Your task to perform on an android device: Open the calendar app, open the side menu, and click the "Day" option Image 0: 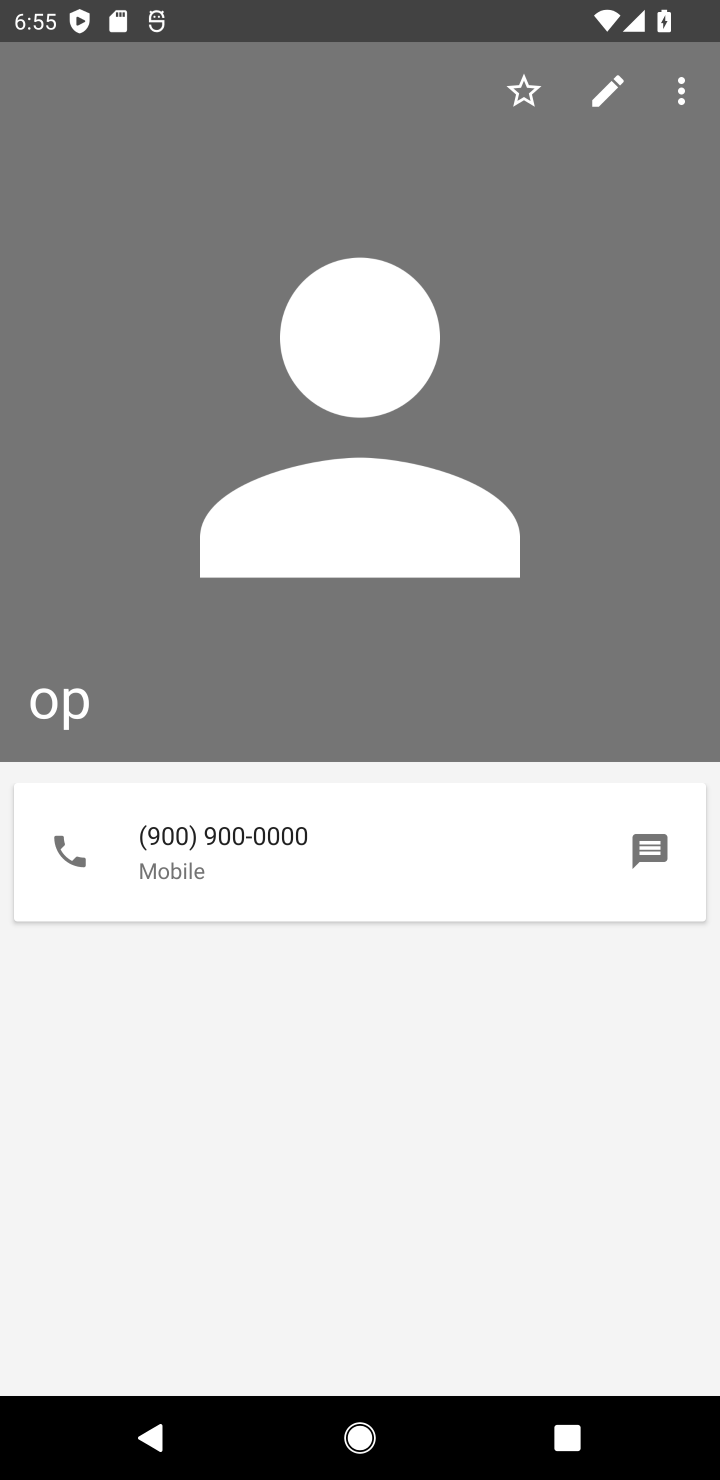
Step 0: press home button
Your task to perform on an android device: Open the calendar app, open the side menu, and click the "Day" option Image 1: 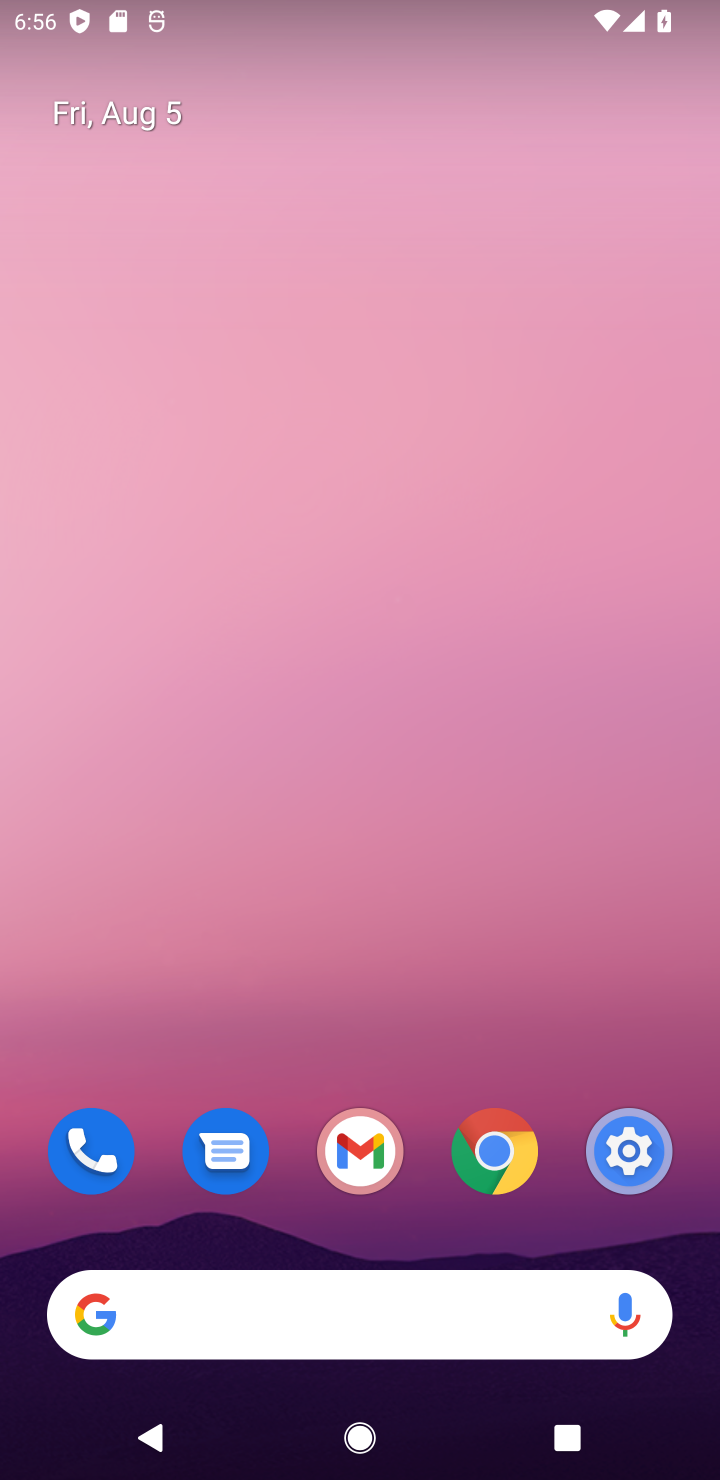
Step 1: drag from (650, 1055) to (507, 407)
Your task to perform on an android device: Open the calendar app, open the side menu, and click the "Day" option Image 2: 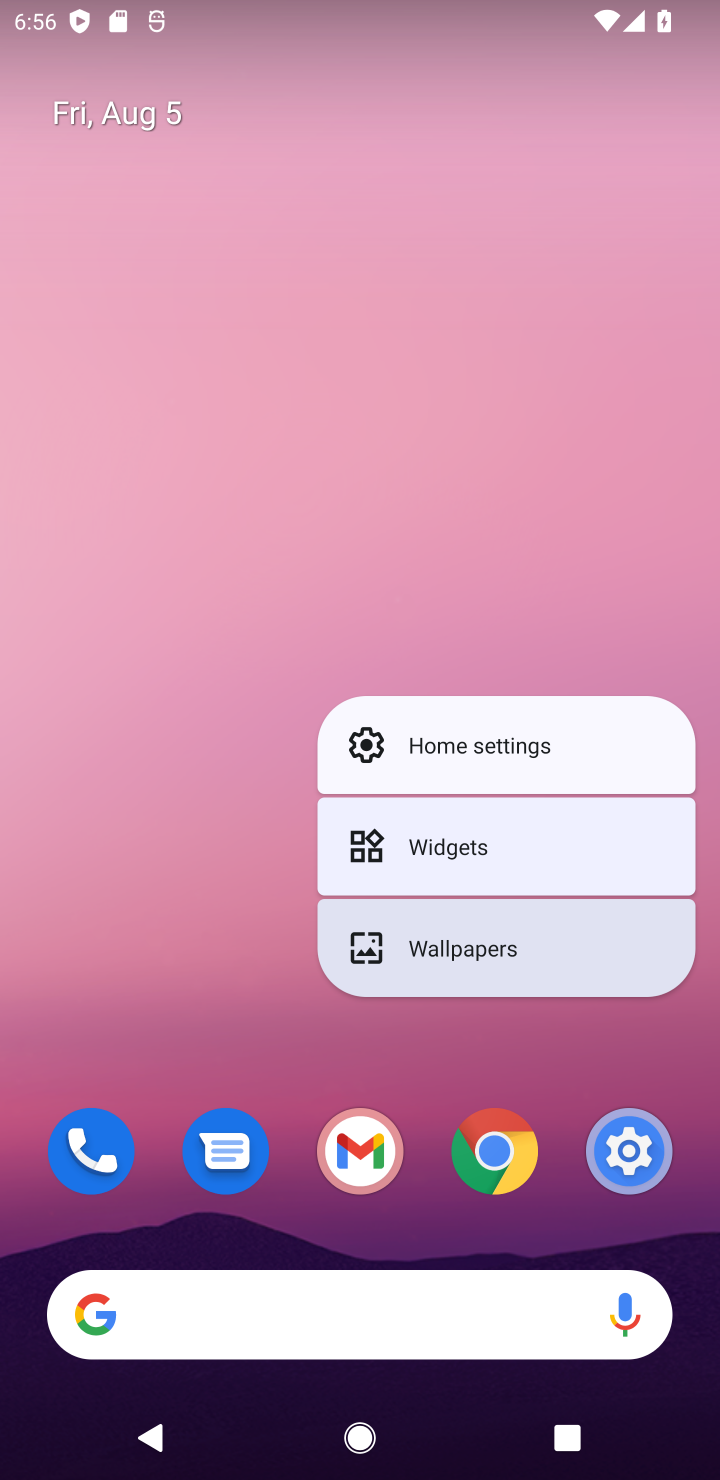
Step 2: click (527, 1052)
Your task to perform on an android device: Open the calendar app, open the side menu, and click the "Day" option Image 3: 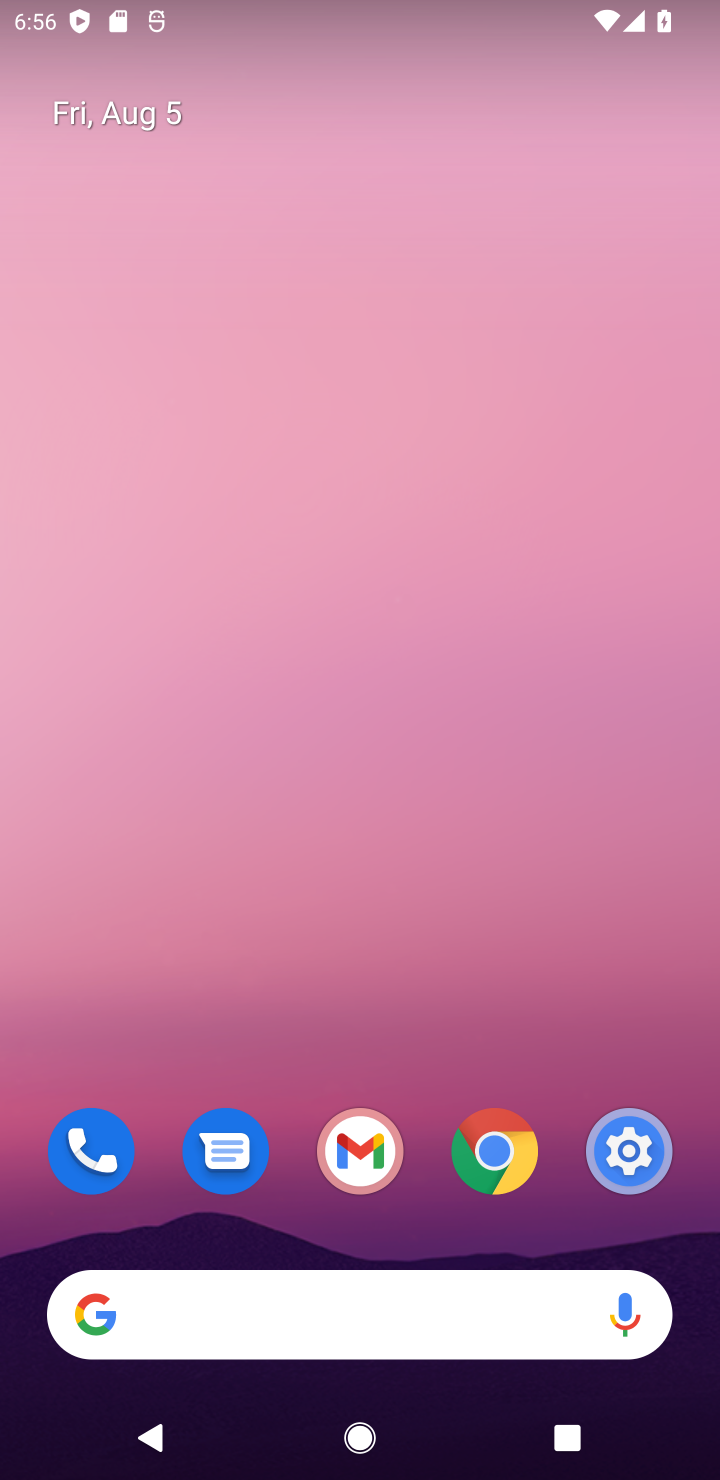
Step 3: drag from (527, 1052) to (503, 546)
Your task to perform on an android device: Open the calendar app, open the side menu, and click the "Day" option Image 4: 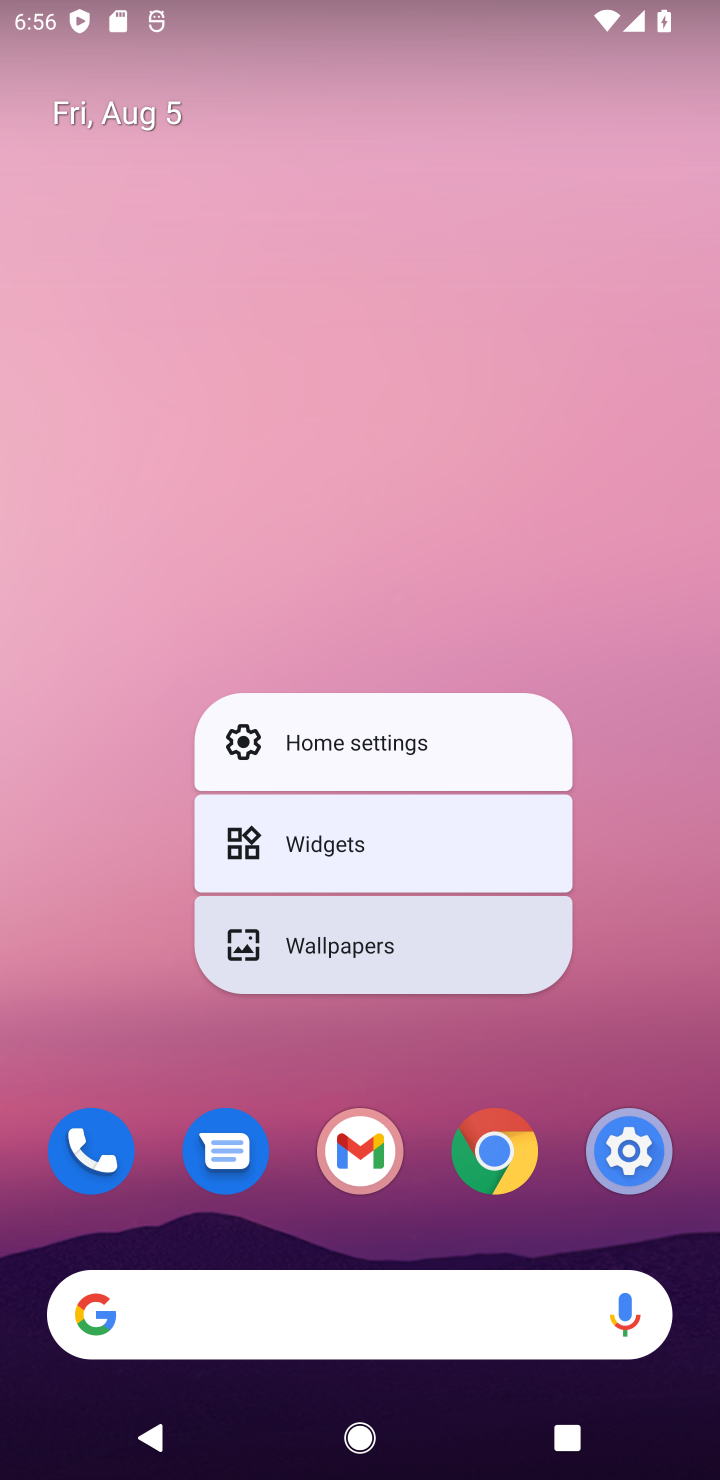
Step 4: click (677, 1084)
Your task to perform on an android device: Open the calendar app, open the side menu, and click the "Day" option Image 5: 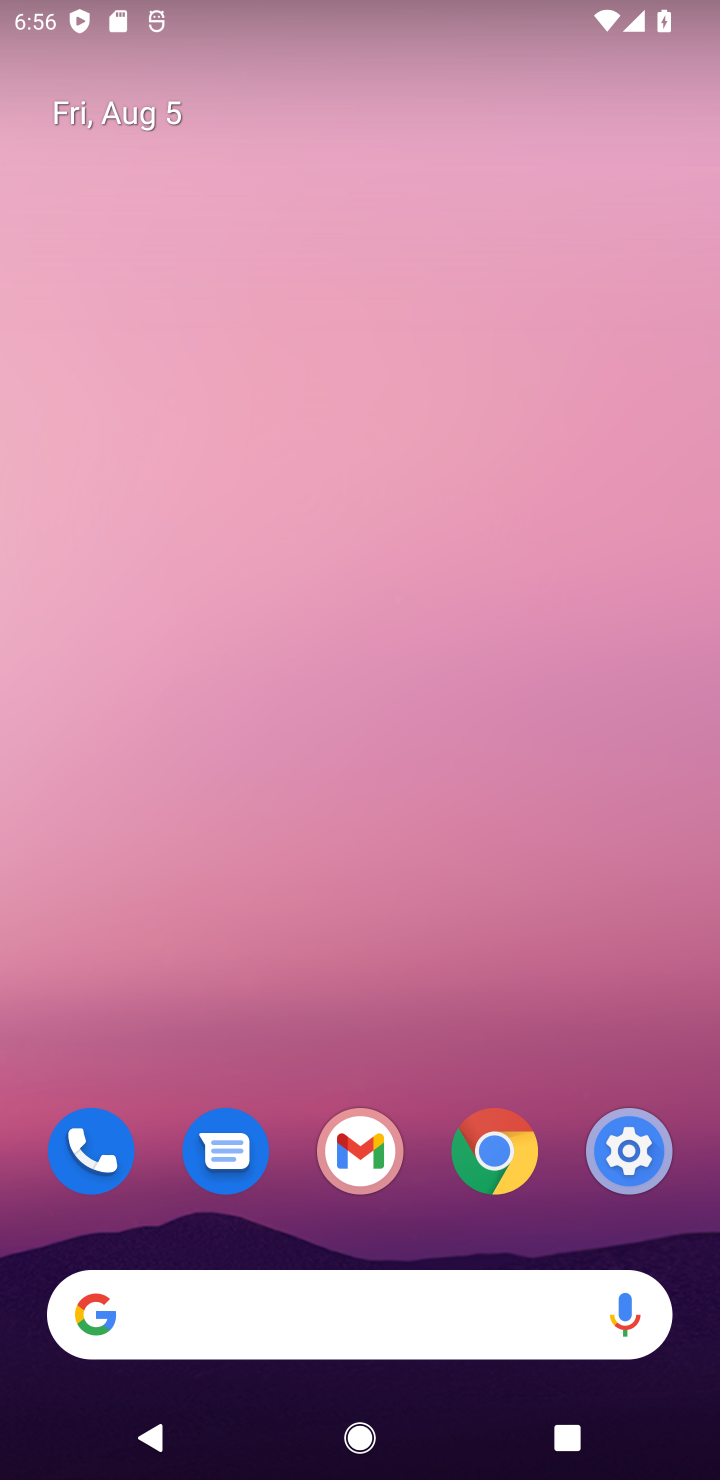
Step 5: drag from (677, 1084) to (647, 398)
Your task to perform on an android device: Open the calendar app, open the side menu, and click the "Day" option Image 6: 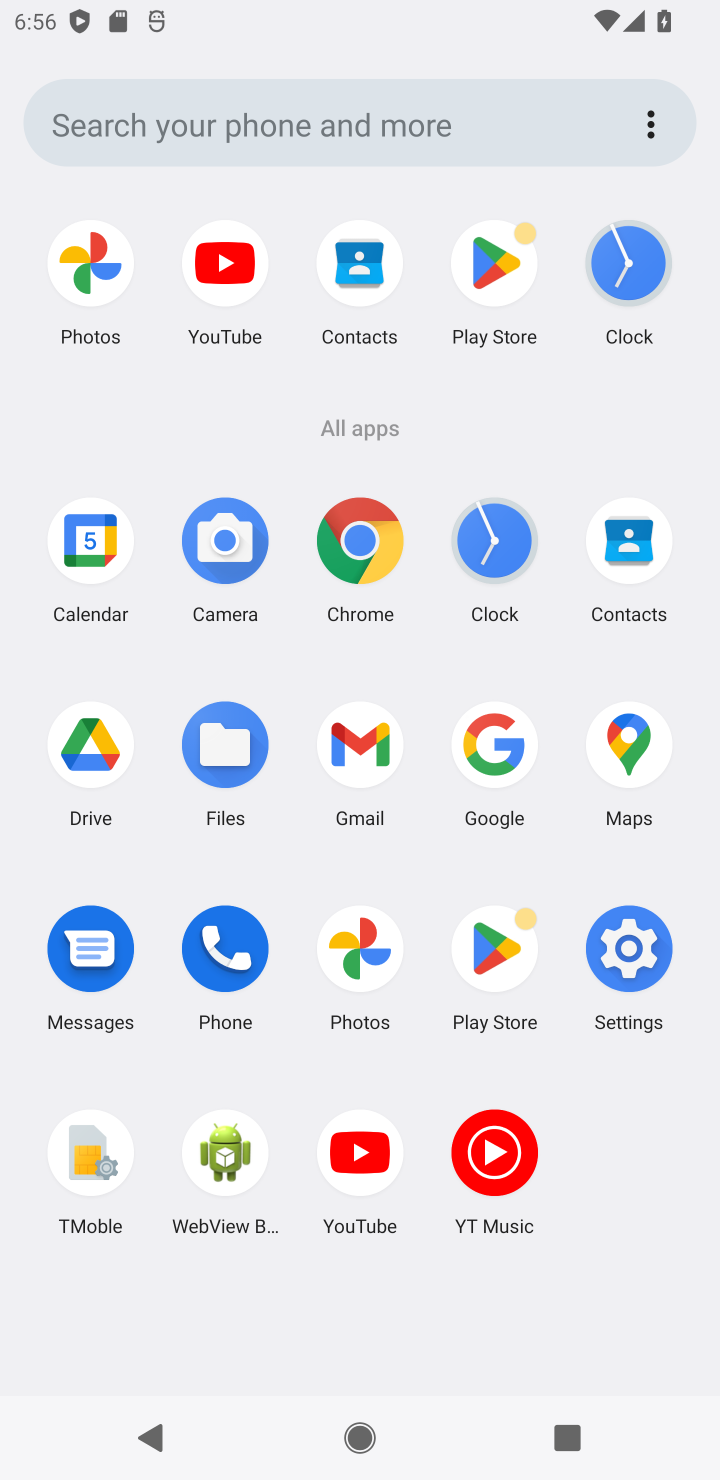
Step 6: click (91, 537)
Your task to perform on an android device: Open the calendar app, open the side menu, and click the "Day" option Image 7: 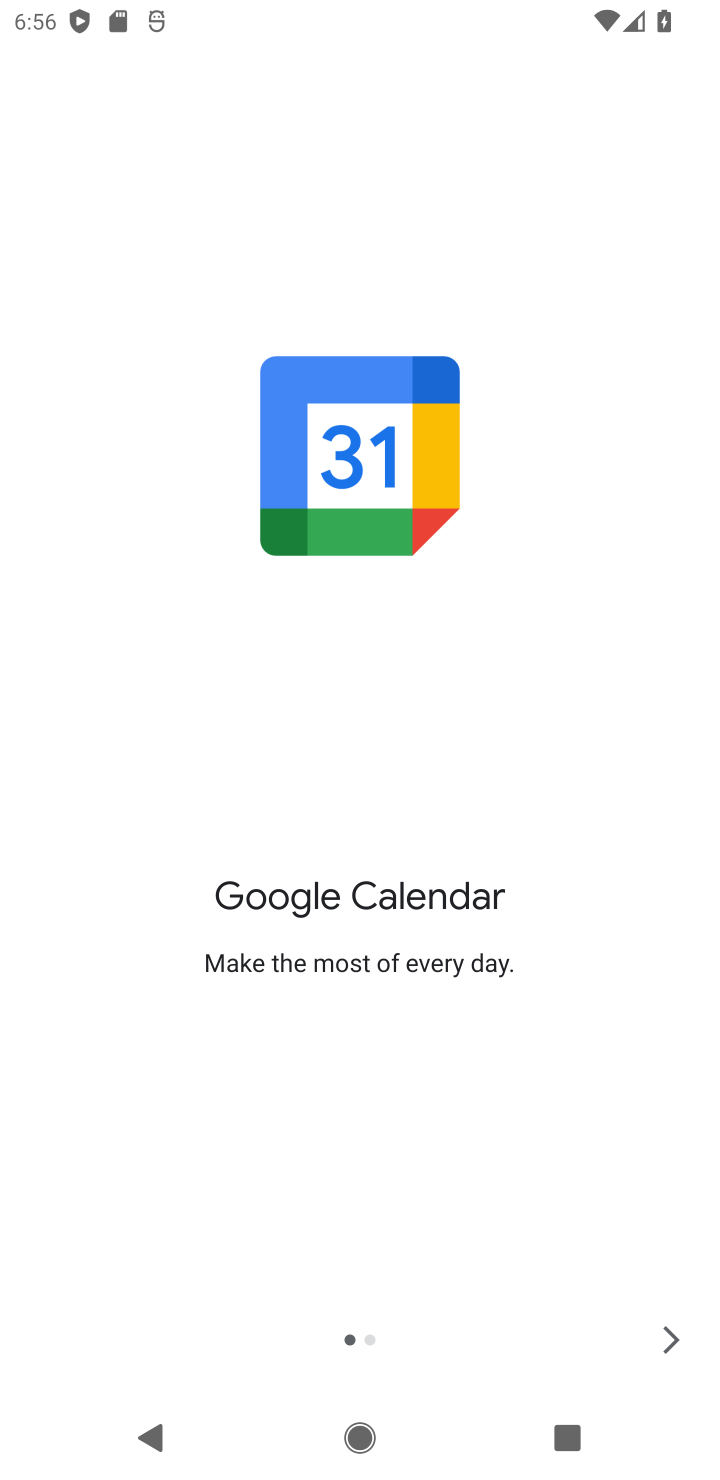
Step 7: click (669, 1344)
Your task to perform on an android device: Open the calendar app, open the side menu, and click the "Day" option Image 8: 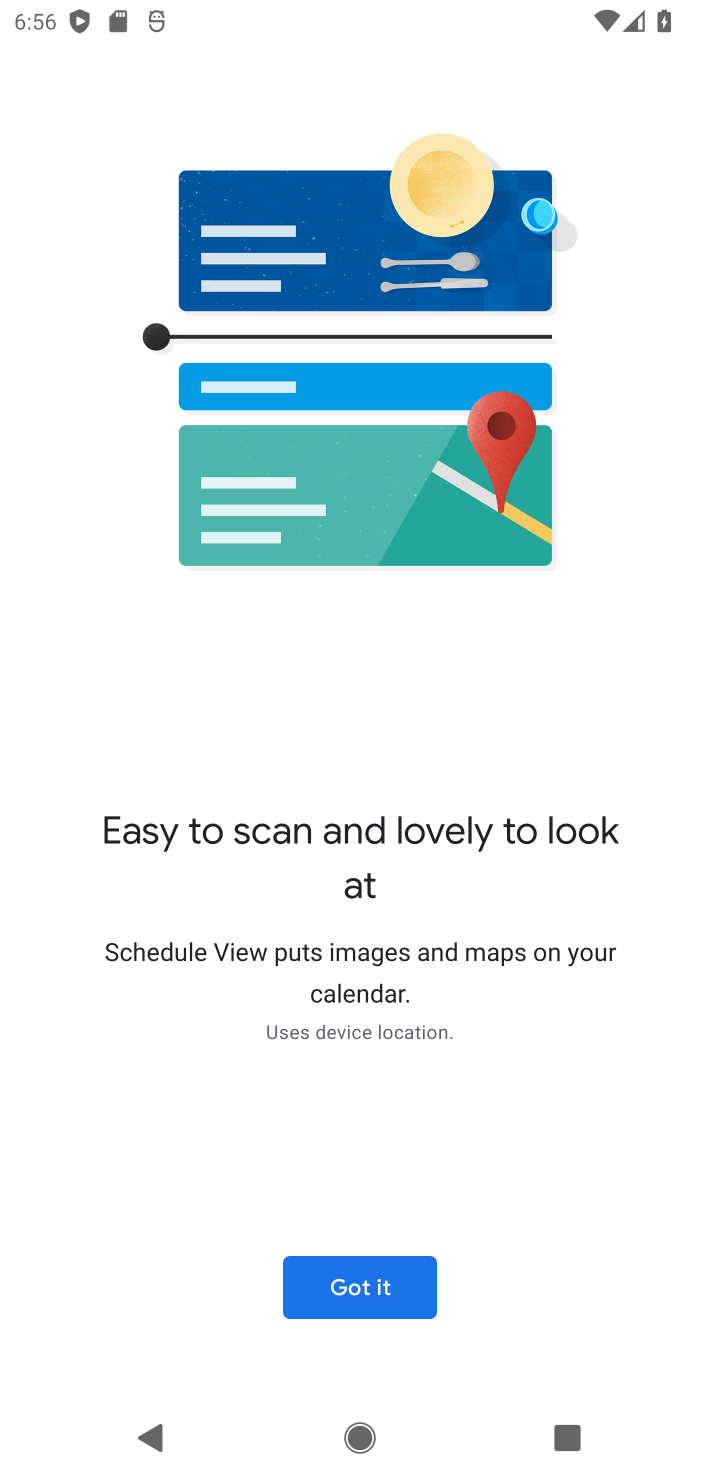
Step 8: click (398, 1293)
Your task to perform on an android device: Open the calendar app, open the side menu, and click the "Day" option Image 9: 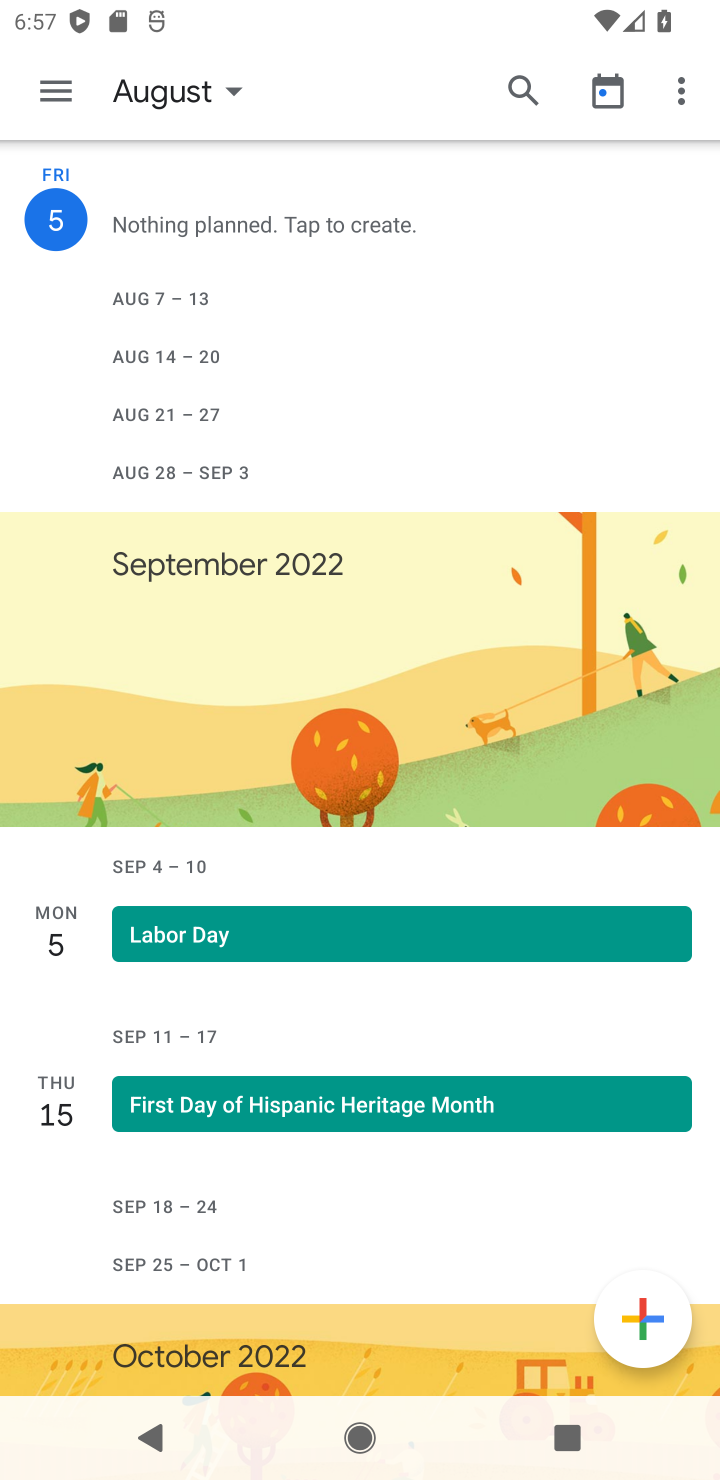
Step 9: click (55, 97)
Your task to perform on an android device: Open the calendar app, open the side menu, and click the "Day" option Image 10: 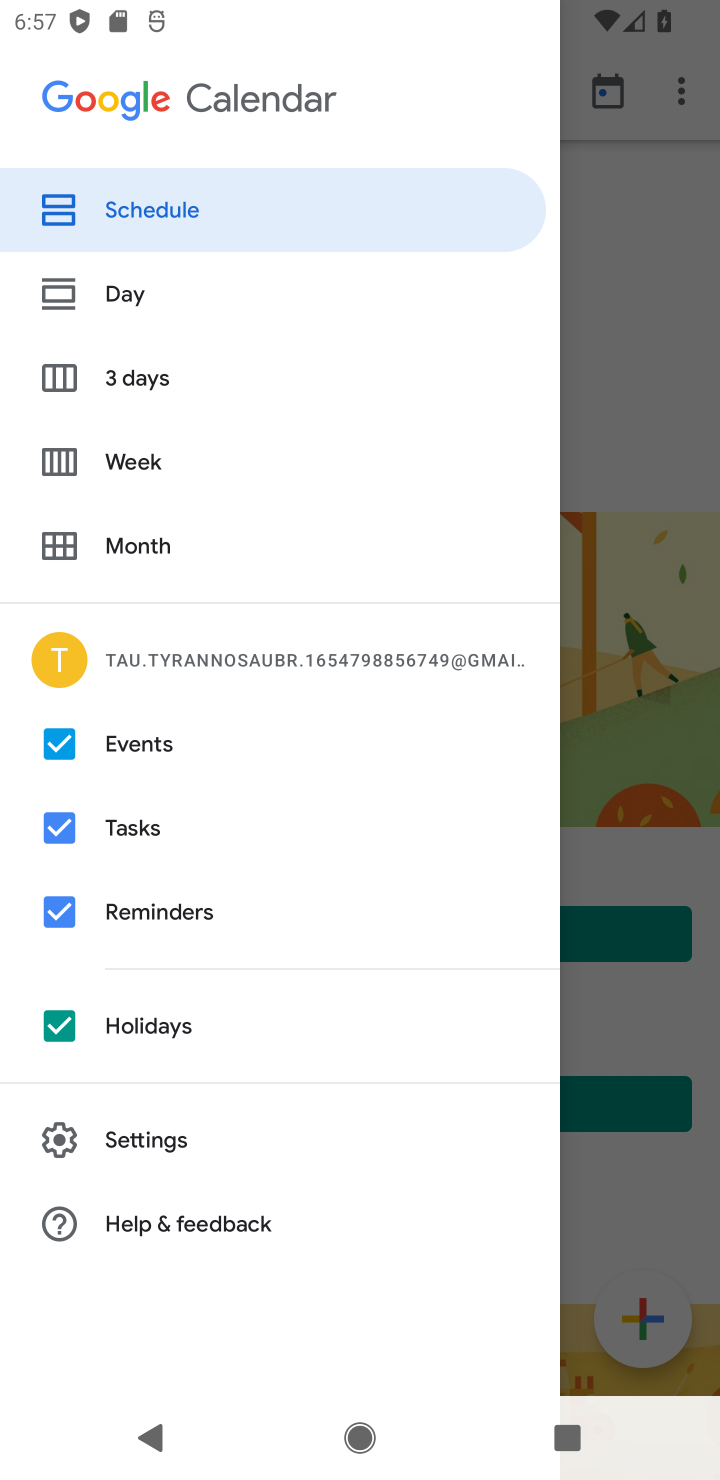
Step 10: click (146, 286)
Your task to perform on an android device: Open the calendar app, open the side menu, and click the "Day" option Image 11: 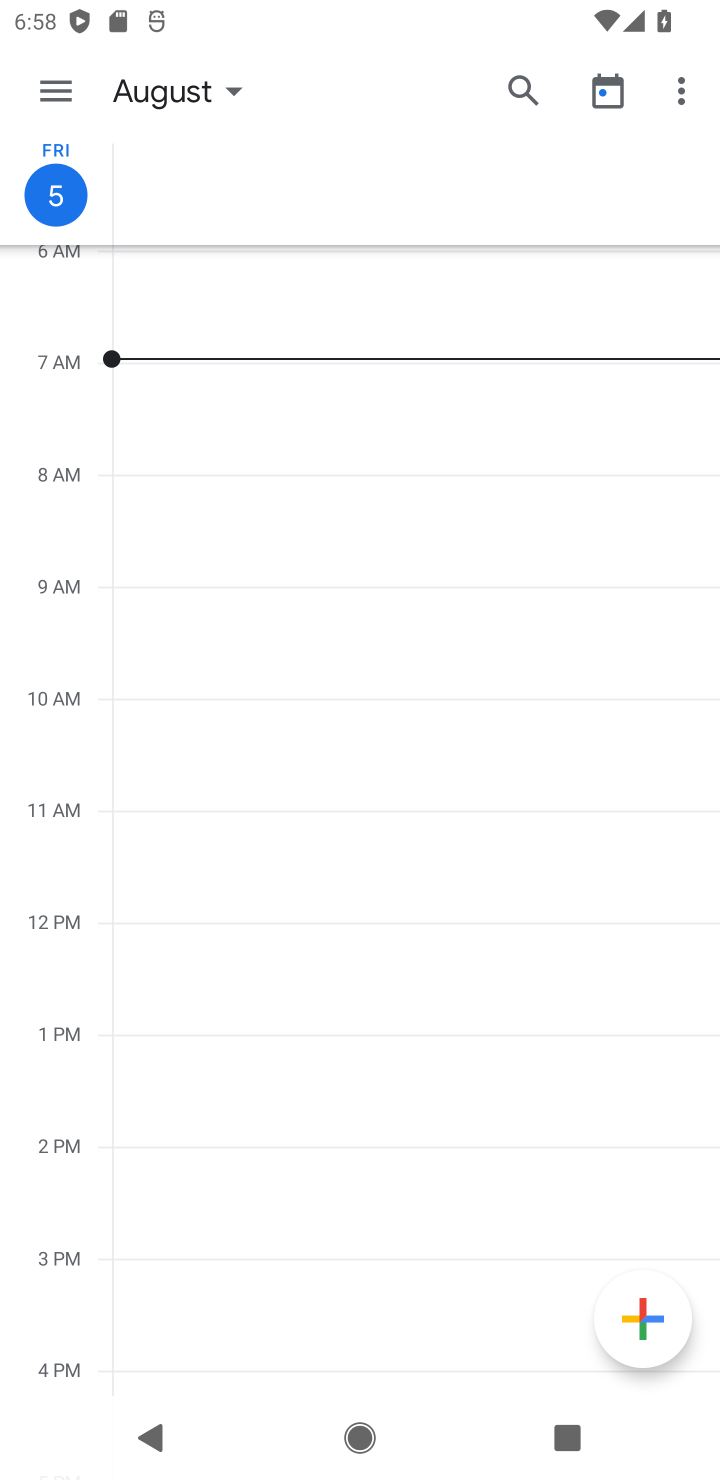
Step 11: task complete